Your task to perform on an android device: allow notifications from all sites in the chrome app Image 0: 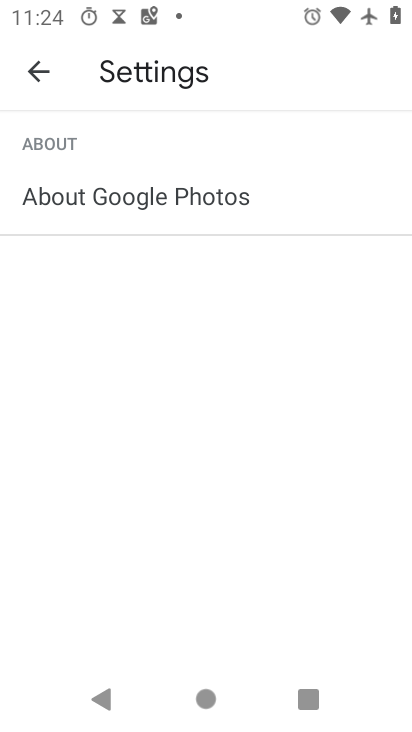
Step 0: press back button
Your task to perform on an android device: allow notifications from all sites in the chrome app Image 1: 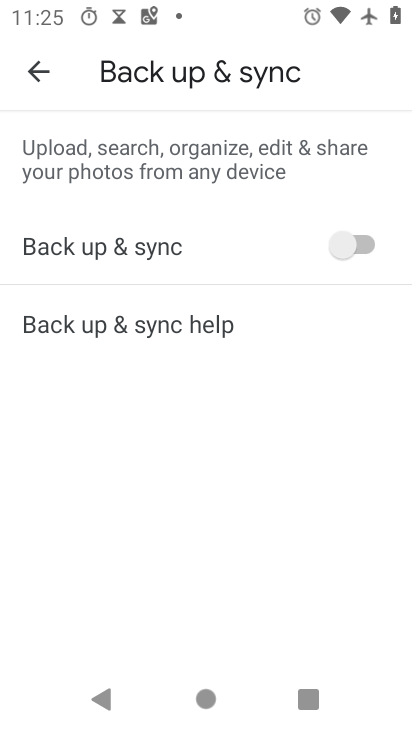
Step 1: press back button
Your task to perform on an android device: allow notifications from all sites in the chrome app Image 2: 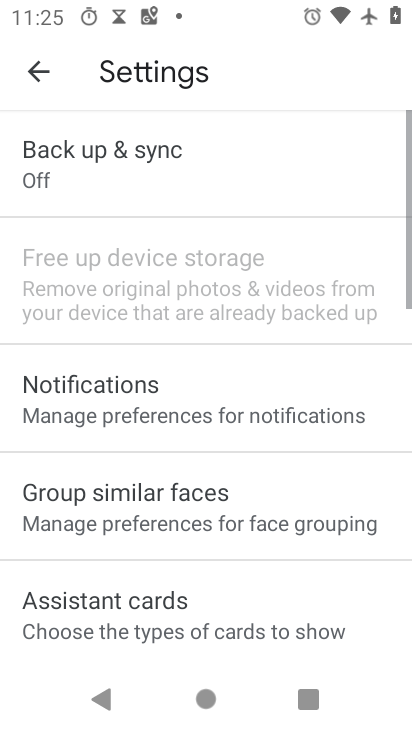
Step 2: press back button
Your task to perform on an android device: allow notifications from all sites in the chrome app Image 3: 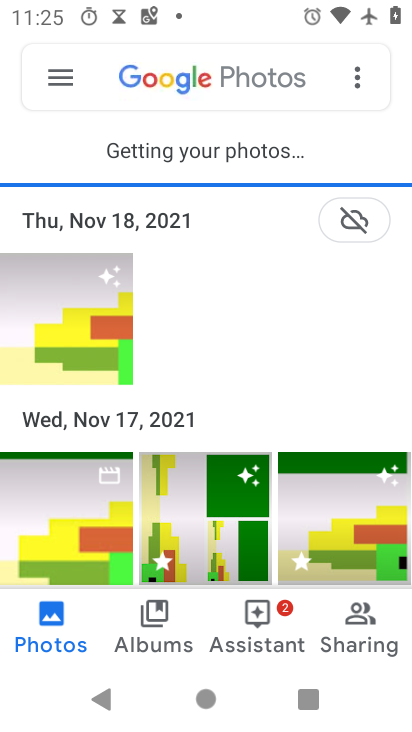
Step 3: press back button
Your task to perform on an android device: allow notifications from all sites in the chrome app Image 4: 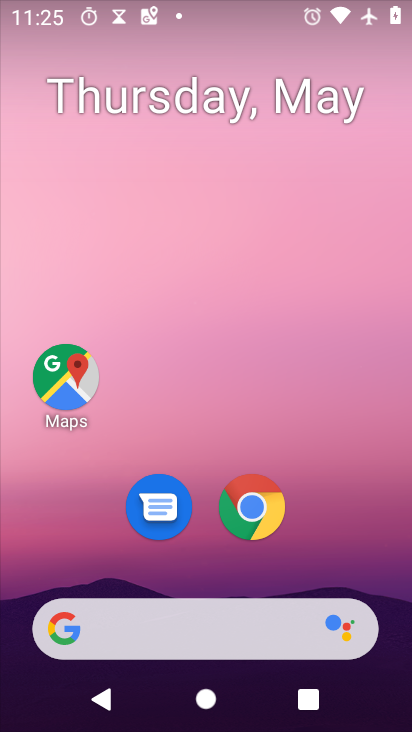
Step 4: drag from (344, 527) to (296, 29)
Your task to perform on an android device: allow notifications from all sites in the chrome app Image 5: 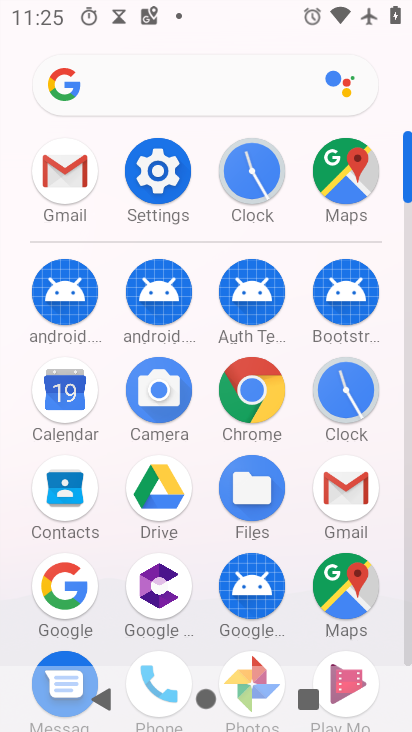
Step 5: drag from (8, 544) to (13, 251)
Your task to perform on an android device: allow notifications from all sites in the chrome app Image 6: 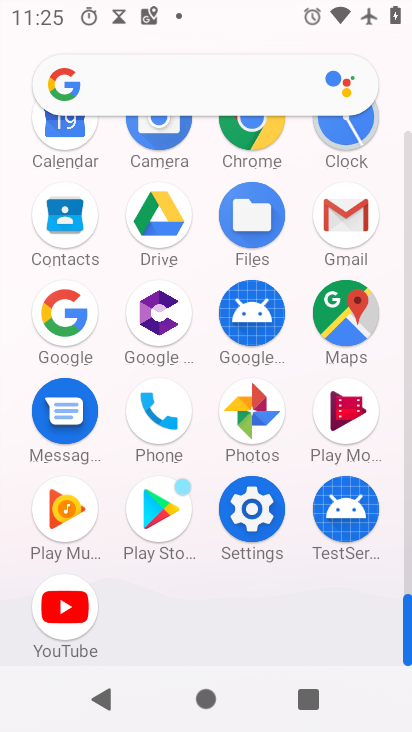
Step 6: click (248, 127)
Your task to perform on an android device: allow notifications from all sites in the chrome app Image 7: 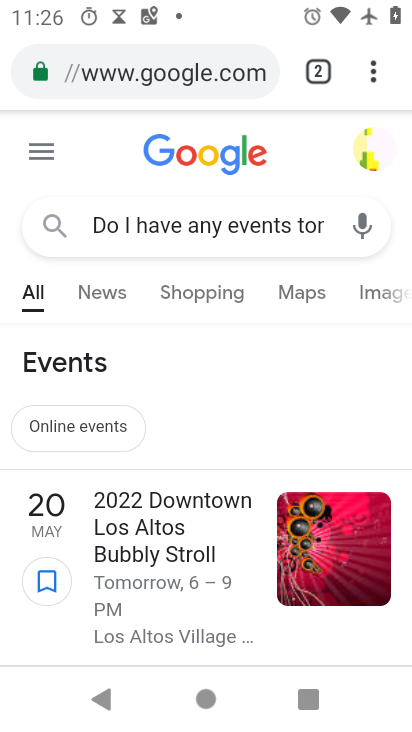
Step 7: drag from (228, 568) to (264, 206)
Your task to perform on an android device: allow notifications from all sites in the chrome app Image 8: 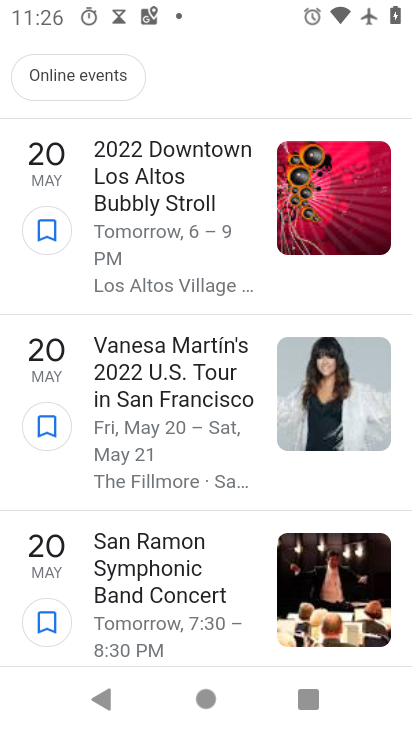
Step 8: drag from (228, 176) to (223, 550)
Your task to perform on an android device: allow notifications from all sites in the chrome app Image 9: 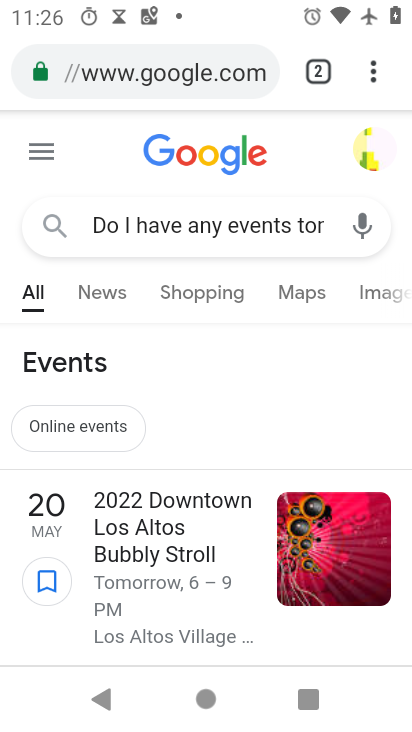
Step 9: drag from (369, 69) to (157, 482)
Your task to perform on an android device: allow notifications from all sites in the chrome app Image 10: 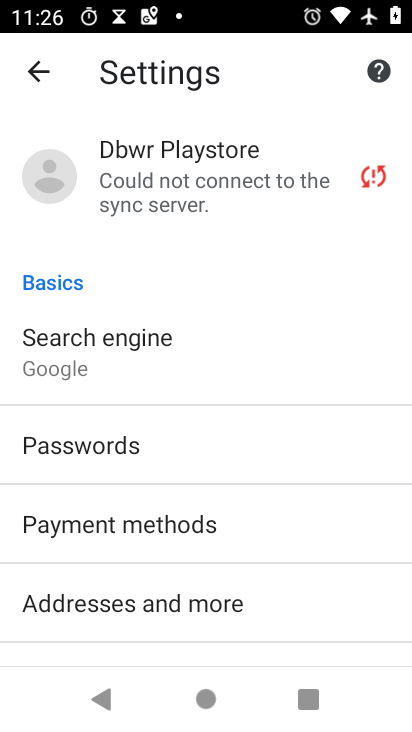
Step 10: drag from (264, 497) to (260, 146)
Your task to perform on an android device: allow notifications from all sites in the chrome app Image 11: 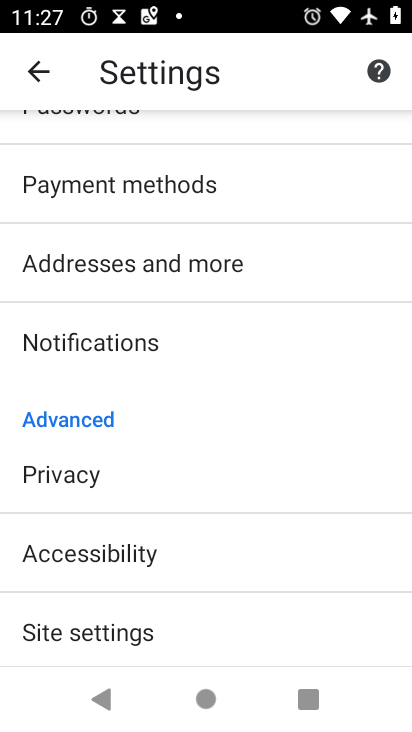
Step 11: drag from (284, 566) to (280, 173)
Your task to perform on an android device: allow notifications from all sites in the chrome app Image 12: 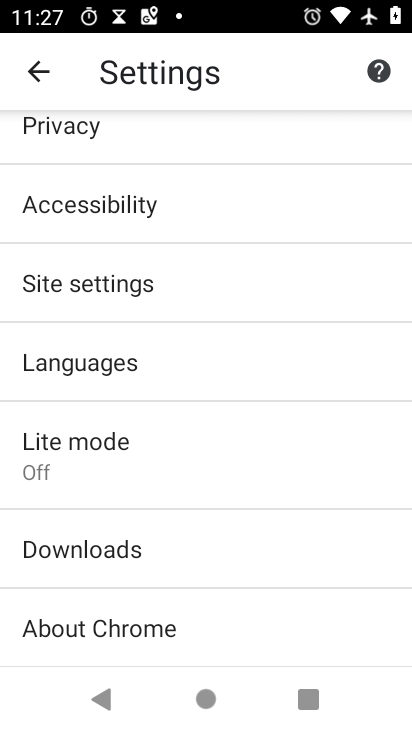
Step 12: click (165, 290)
Your task to perform on an android device: allow notifications from all sites in the chrome app Image 13: 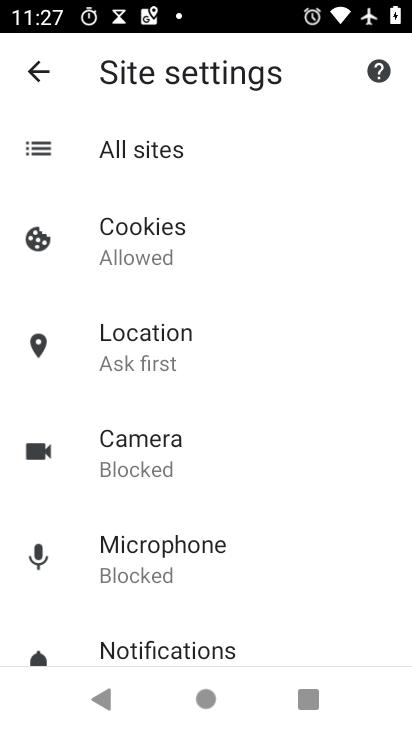
Step 13: drag from (255, 572) to (249, 206)
Your task to perform on an android device: allow notifications from all sites in the chrome app Image 14: 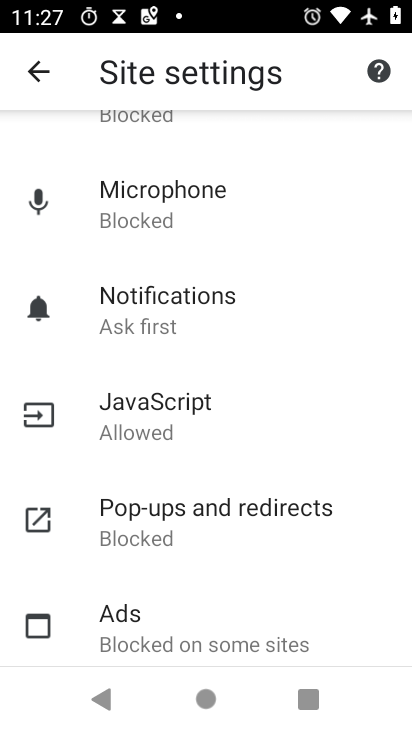
Step 14: click (194, 288)
Your task to perform on an android device: allow notifications from all sites in the chrome app Image 15: 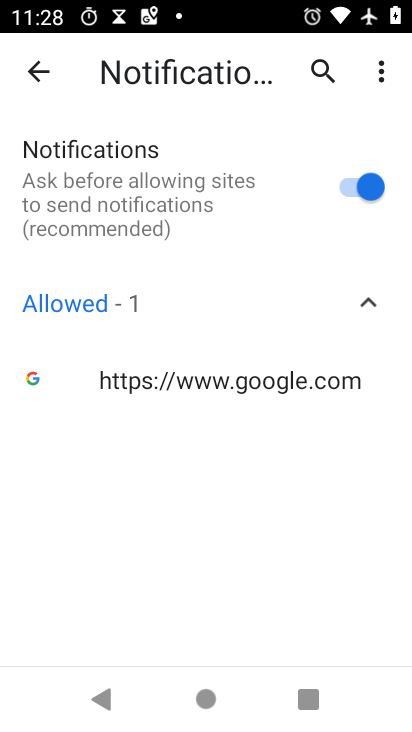
Step 15: task complete